Your task to perform on an android device: Go to internet settings Image 0: 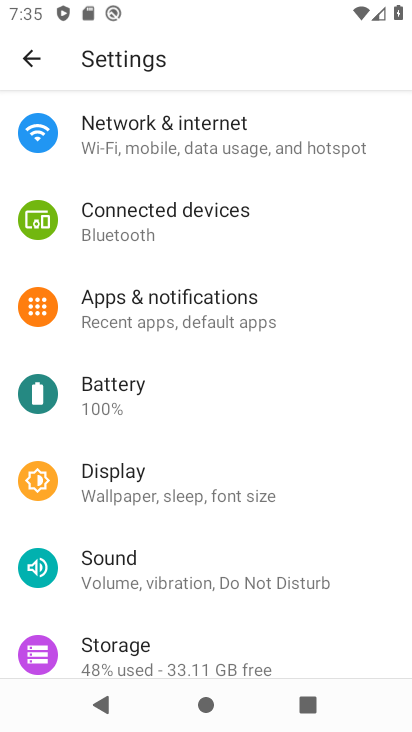
Step 0: click (201, 131)
Your task to perform on an android device: Go to internet settings Image 1: 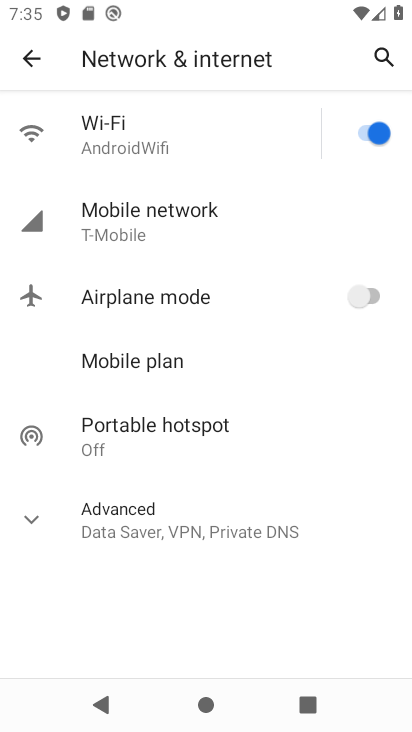
Step 1: click (168, 528)
Your task to perform on an android device: Go to internet settings Image 2: 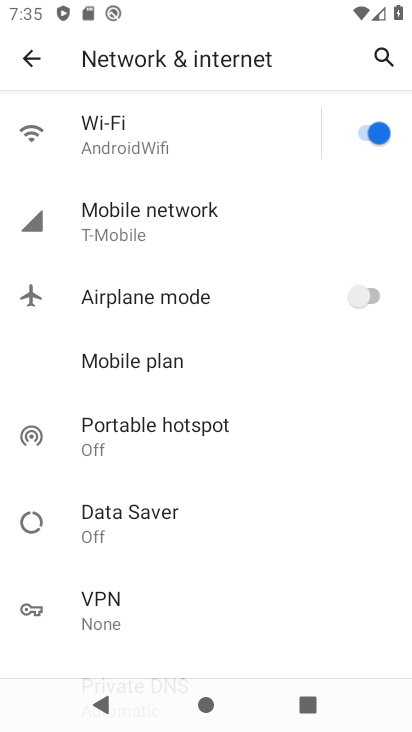
Step 2: task complete